Your task to perform on an android device: refresh tabs in the chrome app Image 0: 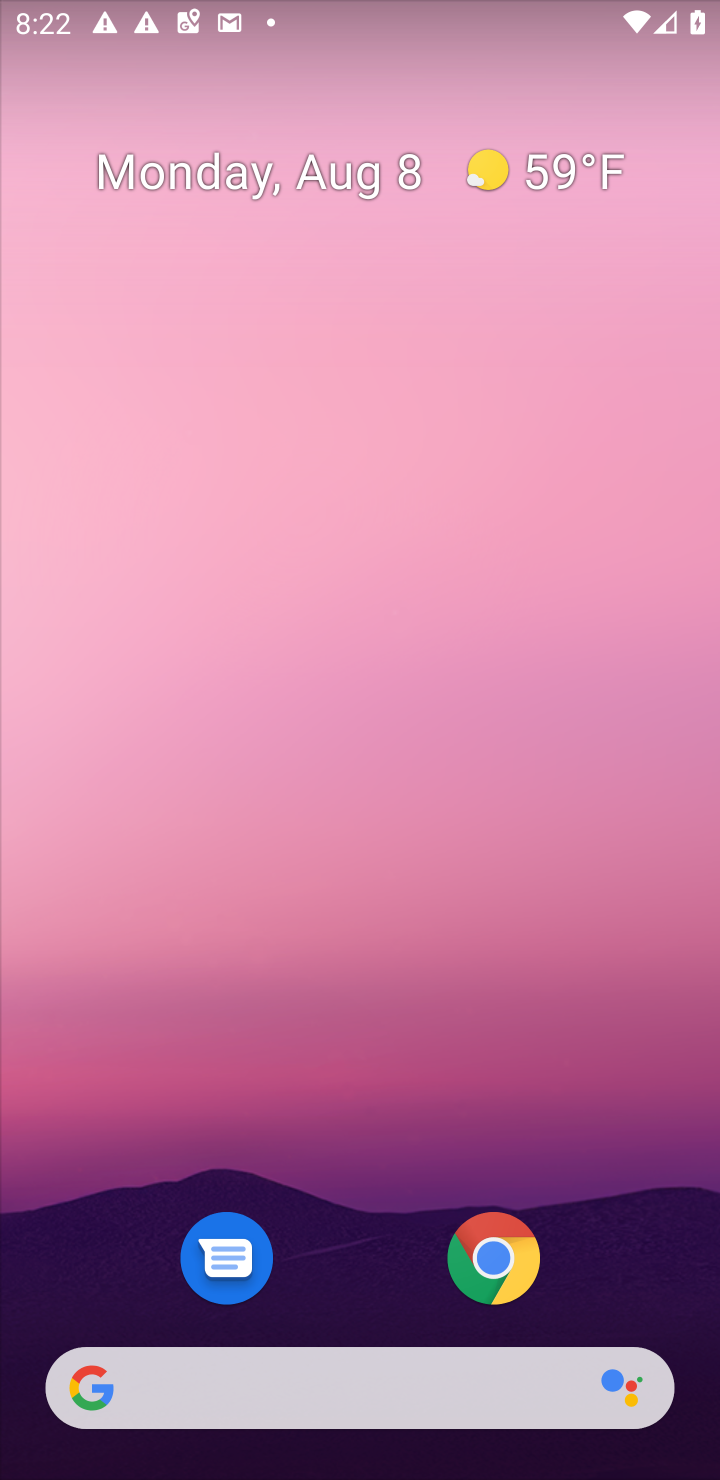
Step 0: click (498, 1231)
Your task to perform on an android device: refresh tabs in the chrome app Image 1: 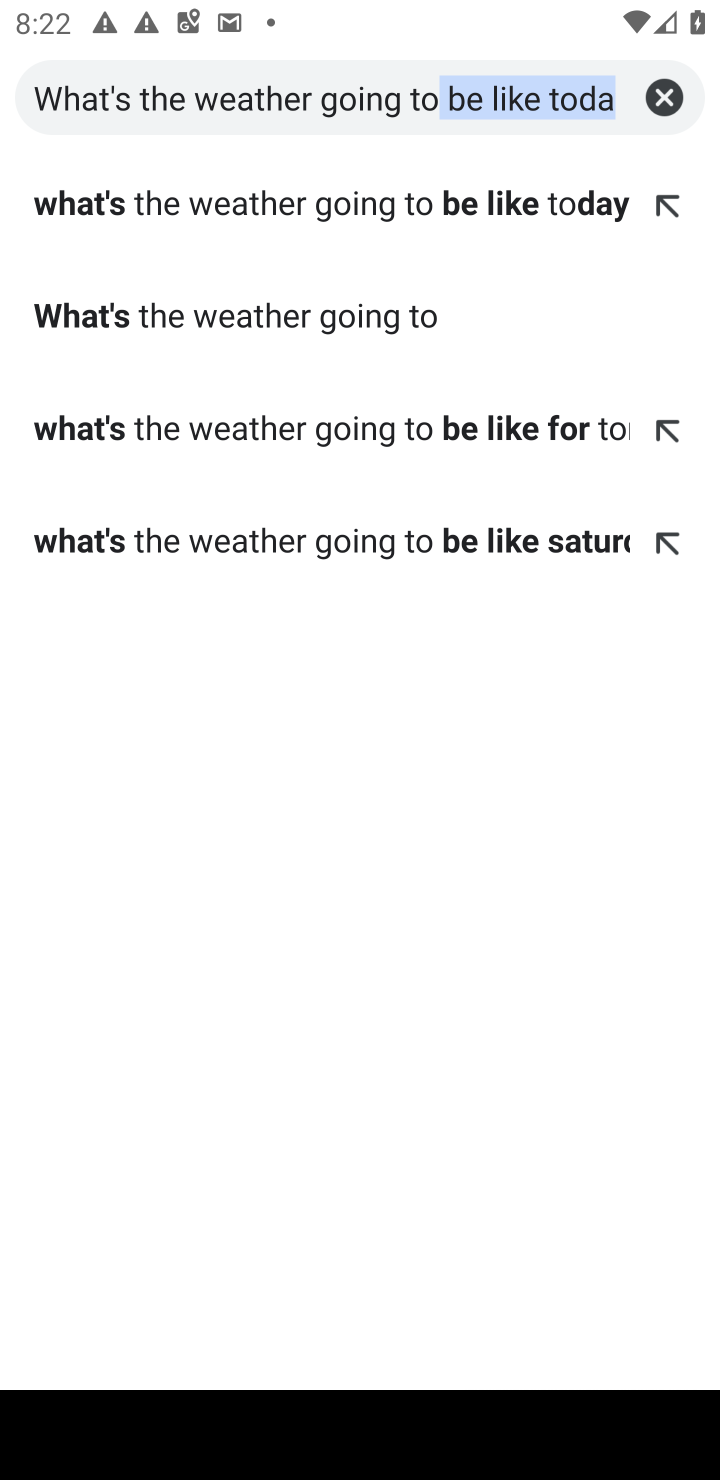
Step 1: click (658, 100)
Your task to perform on an android device: refresh tabs in the chrome app Image 2: 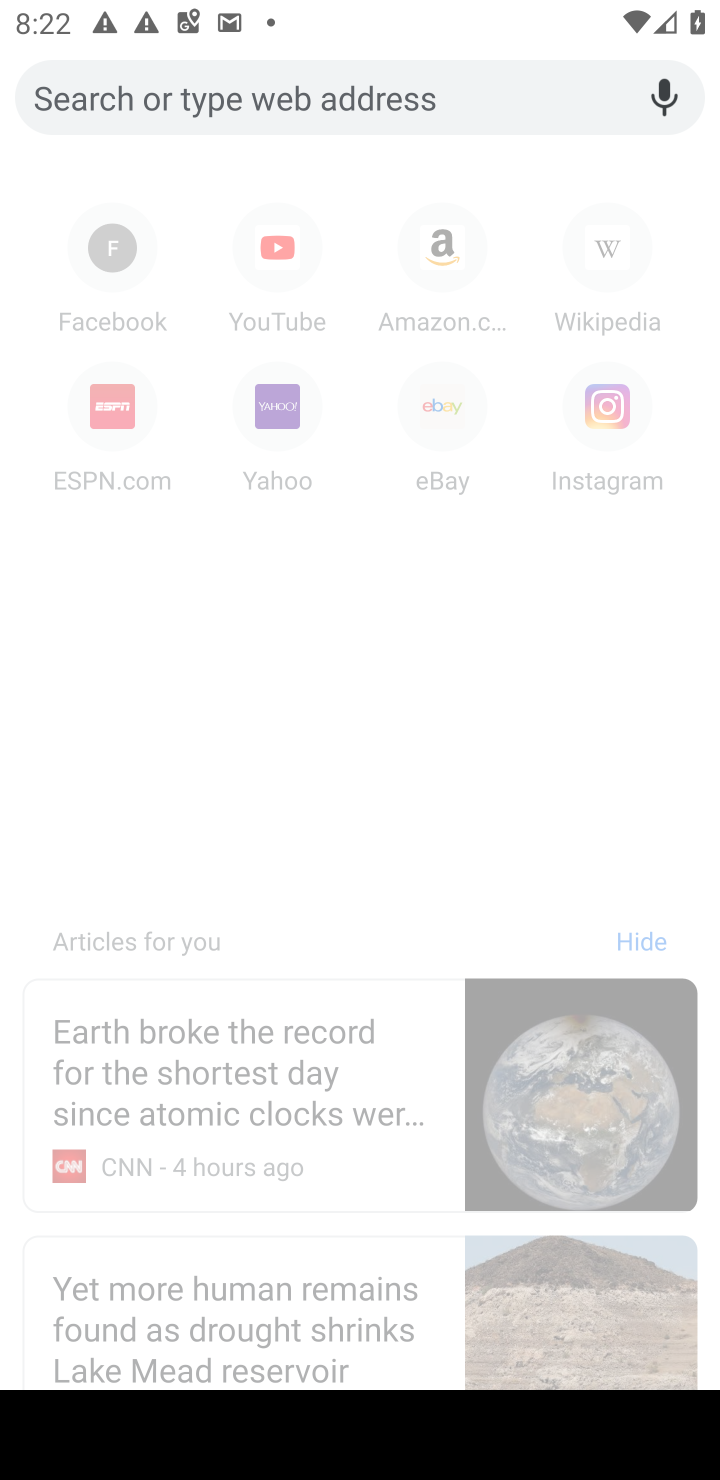
Step 2: click (454, 593)
Your task to perform on an android device: refresh tabs in the chrome app Image 3: 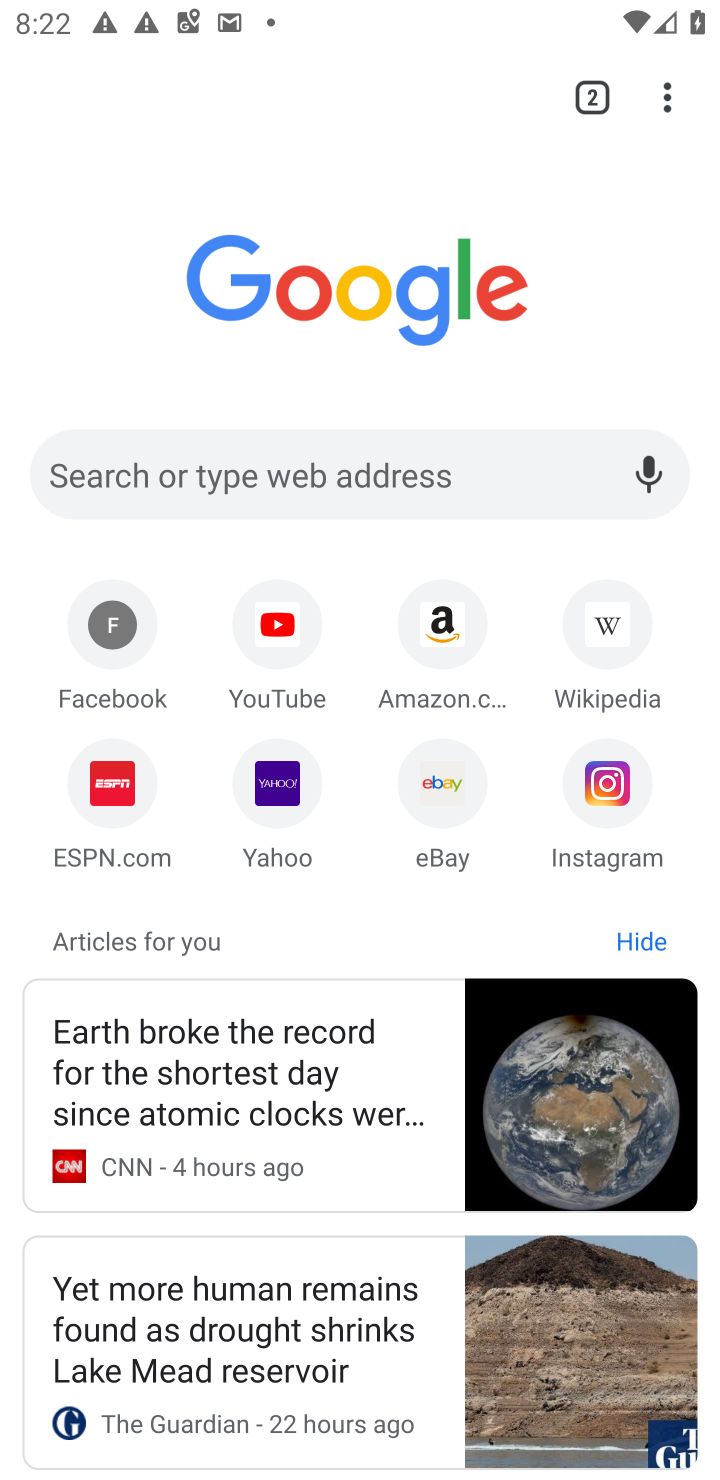
Step 3: click (589, 92)
Your task to perform on an android device: refresh tabs in the chrome app Image 4: 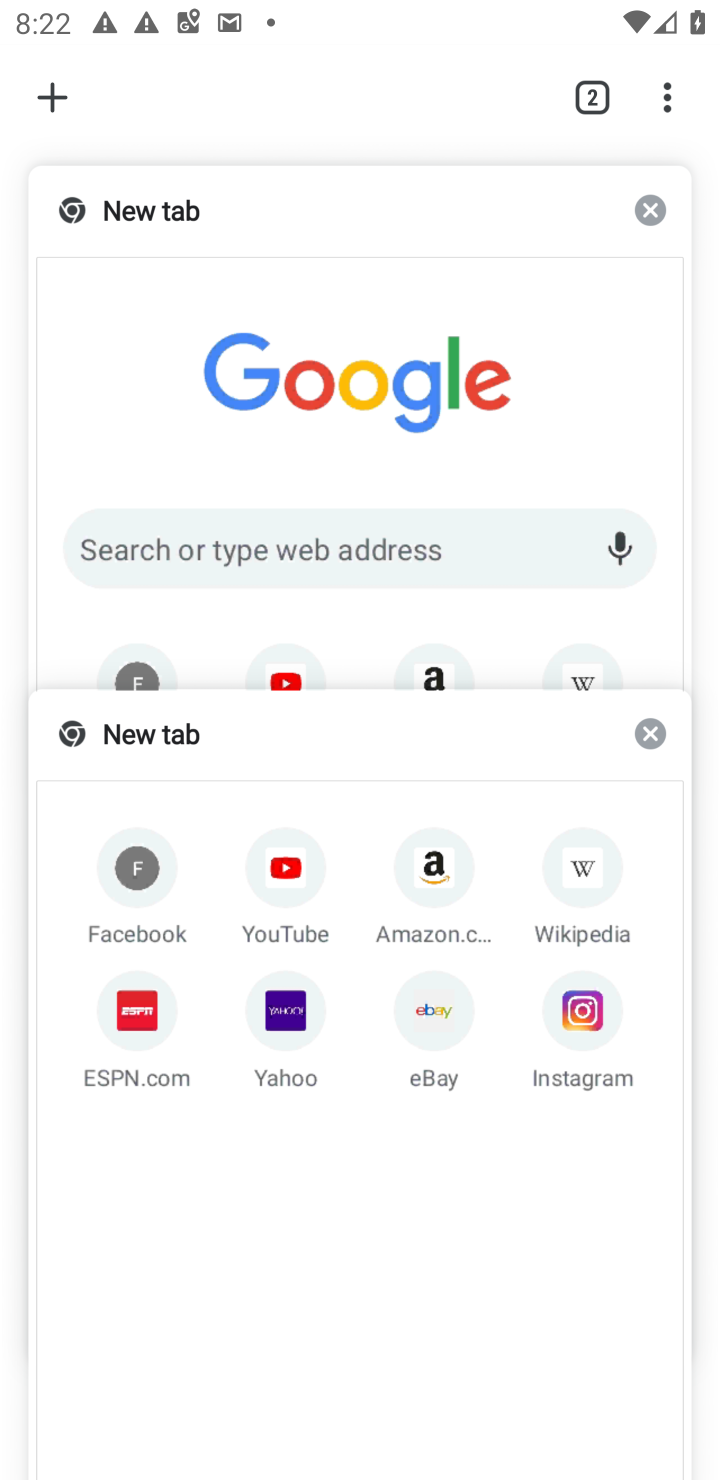
Step 4: task complete